Your task to perform on an android device: toggle priority inbox in the gmail app Image 0: 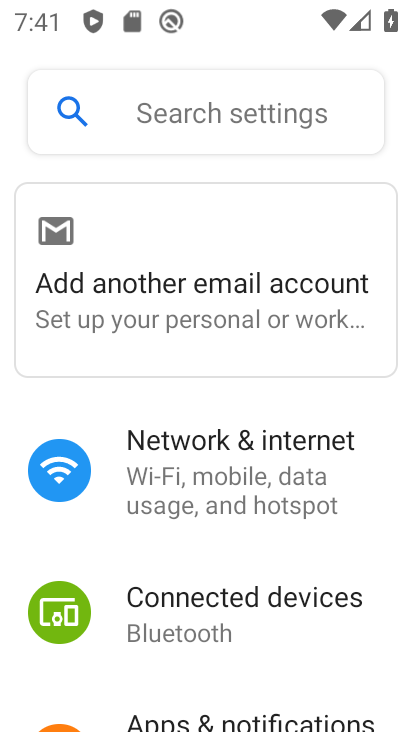
Step 0: press home button
Your task to perform on an android device: toggle priority inbox in the gmail app Image 1: 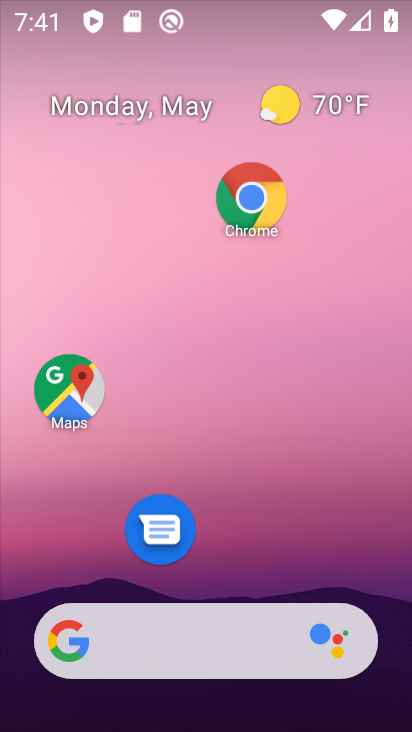
Step 1: drag from (225, 580) to (237, 68)
Your task to perform on an android device: toggle priority inbox in the gmail app Image 2: 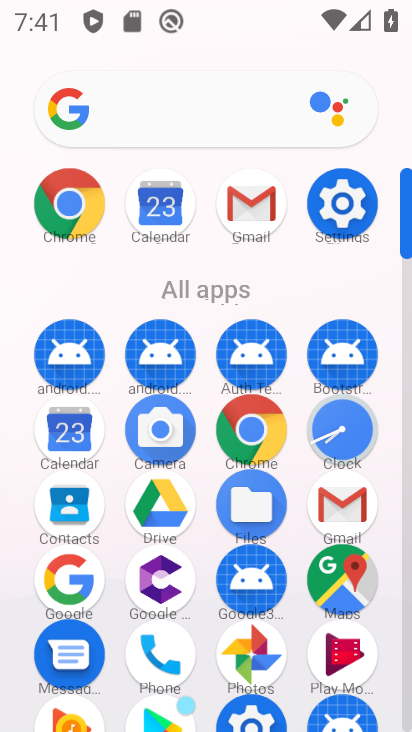
Step 2: click (248, 192)
Your task to perform on an android device: toggle priority inbox in the gmail app Image 3: 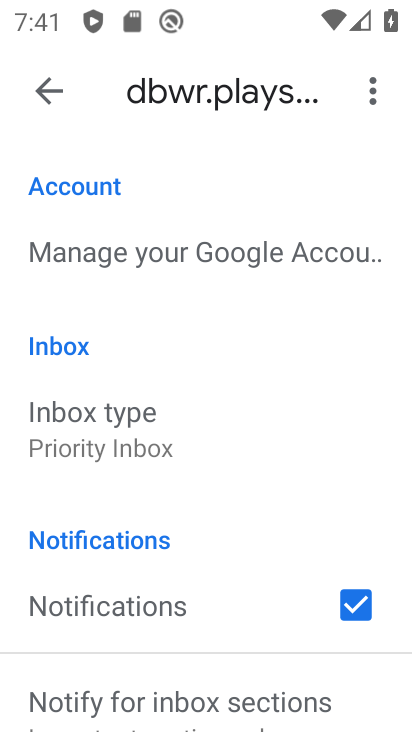
Step 3: click (170, 431)
Your task to perform on an android device: toggle priority inbox in the gmail app Image 4: 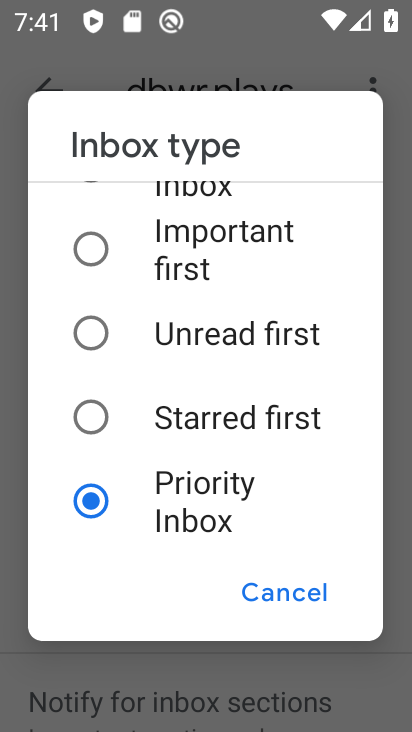
Step 4: click (93, 409)
Your task to perform on an android device: toggle priority inbox in the gmail app Image 5: 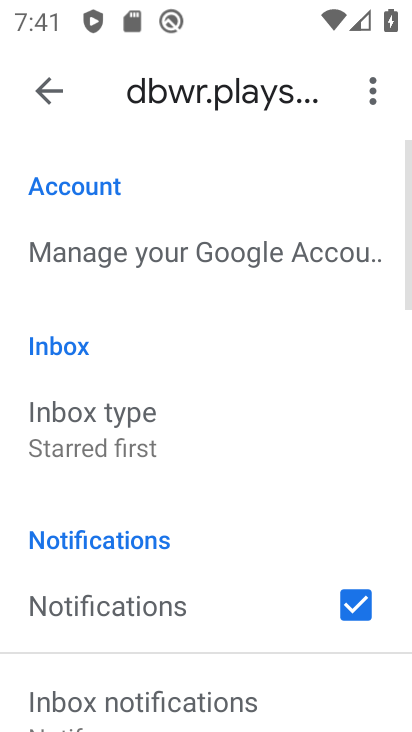
Step 5: task complete